Your task to perform on an android device: turn smart compose on in the gmail app Image 0: 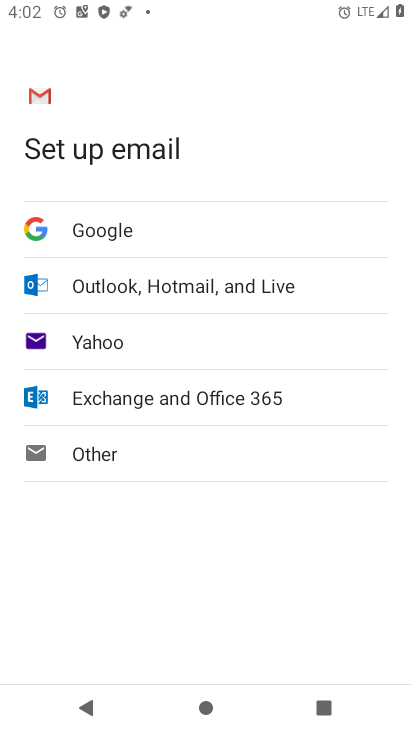
Step 0: press home button
Your task to perform on an android device: turn smart compose on in the gmail app Image 1: 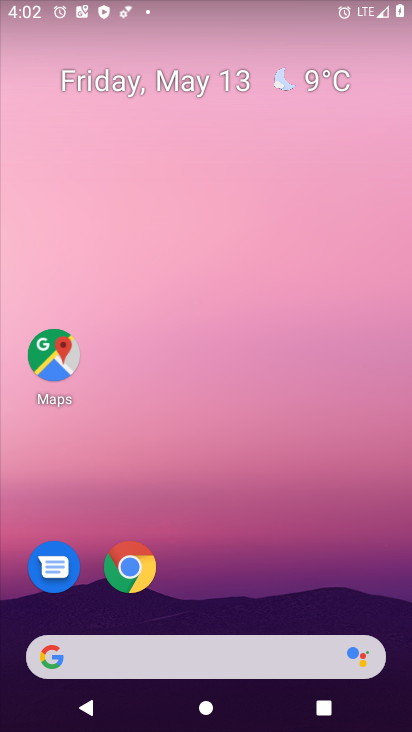
Step 1: drag from (277, 592) to (320, 10)
Your task to perform on an android device: turn smart compose on in the gmail app Image 2: 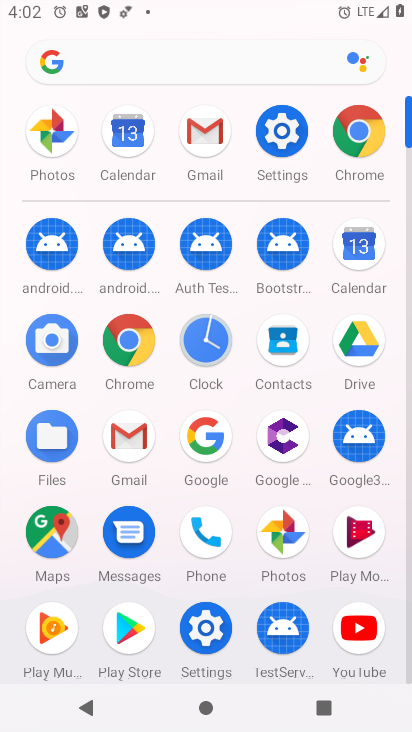
Step 2: click (205, 130)
Your task to perform on an android device: turn smart compose on in the gmail app Image 3: 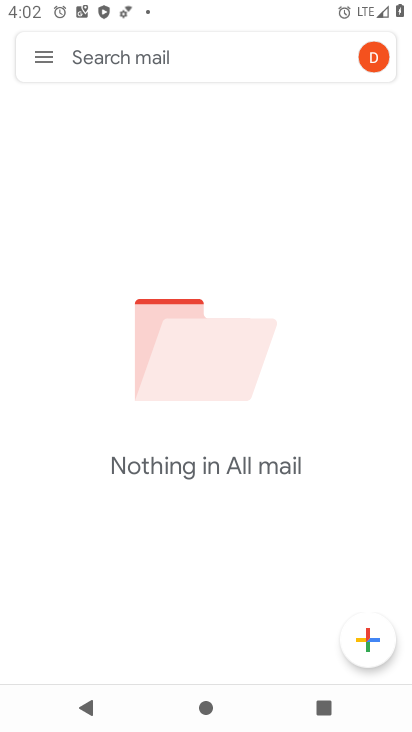
Step 3: click (38, 58)
Your task to perform on an android device: turn smart compose on in the gmail app Image 4: 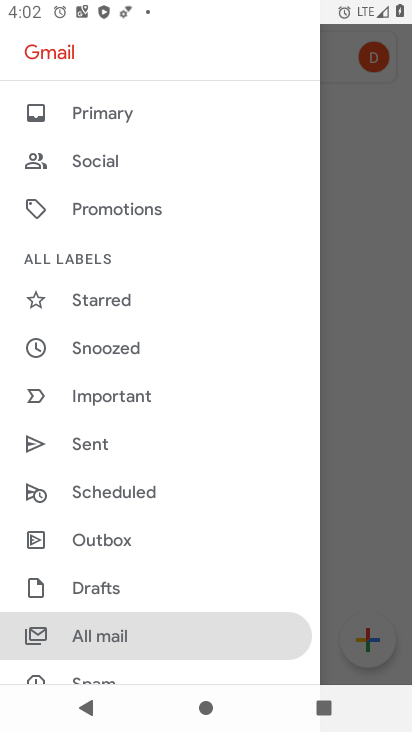
Step 4: drag from (159, 565) to (186, 169)
Your task to perform on an android device: turn smart compose on in the gmail app Image 5: 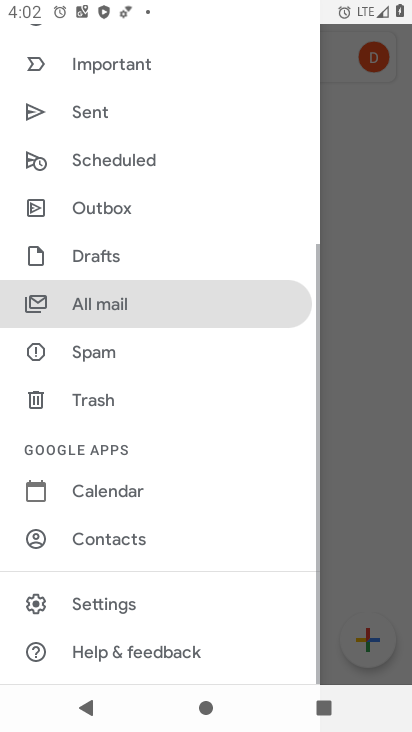
Step 5: click (102, 600)
Your task to perform on an android device: turn smart compose on in the gmail app Image 6: 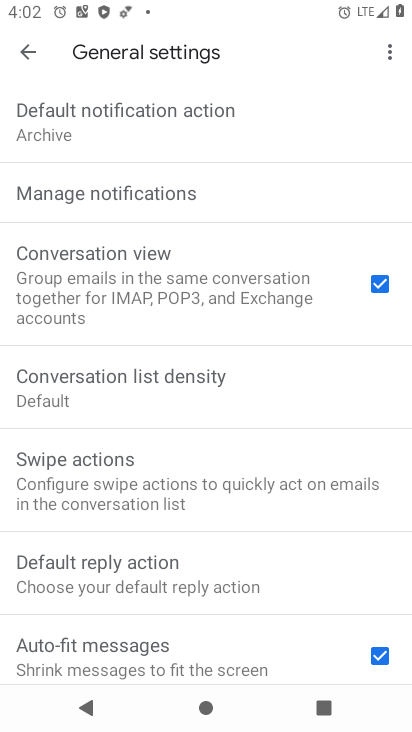
Step 6: click (32, 52)
Your task to perform on an android device: turn smart compose on in the gmail app Image 7: 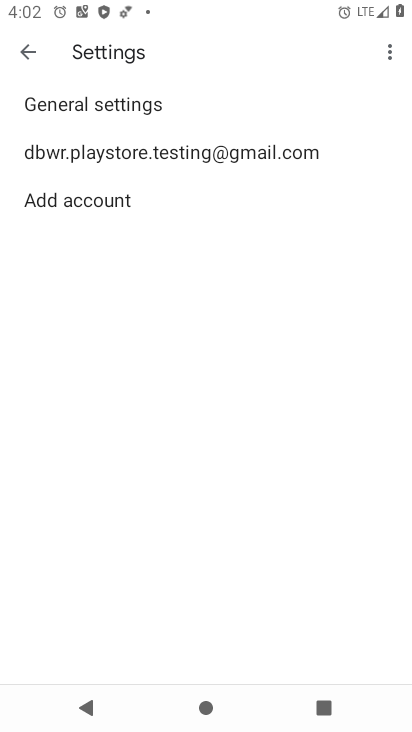
Step 7: click (83, 147)
Your task to perform on an android device: turn smart compose on in the gmail app Image 8: 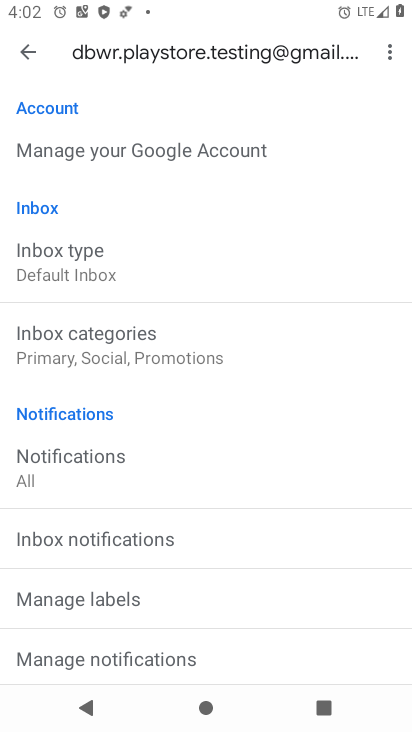
Step 8: task complete